Your task to perform on an android device: turn off priority inbox in the gmail app Image 0: 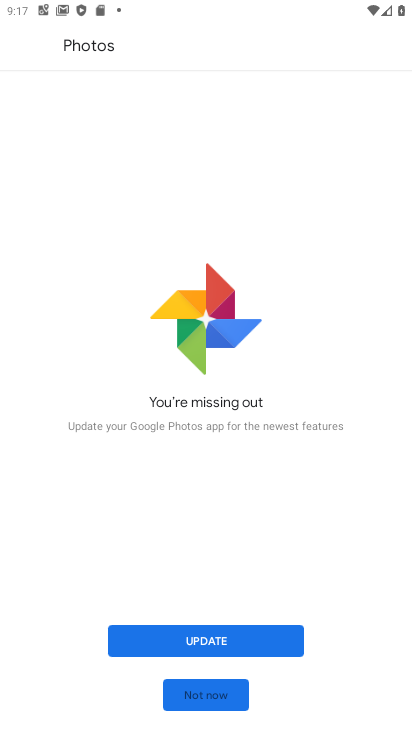
Step 0: press home button
Your task to perform on an android device: turn off priority inbox in the gmail app Image 1: 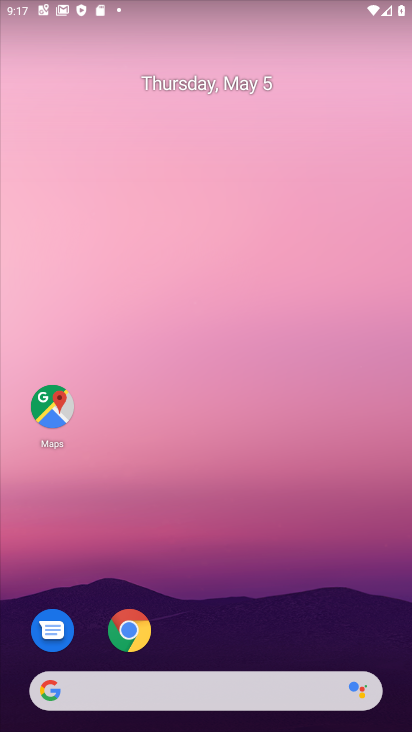
Step 1: drag from (131, 421) to (70, 104)
Your task to perform on an android device: turn off priority inbox in the gmail app Image 2: 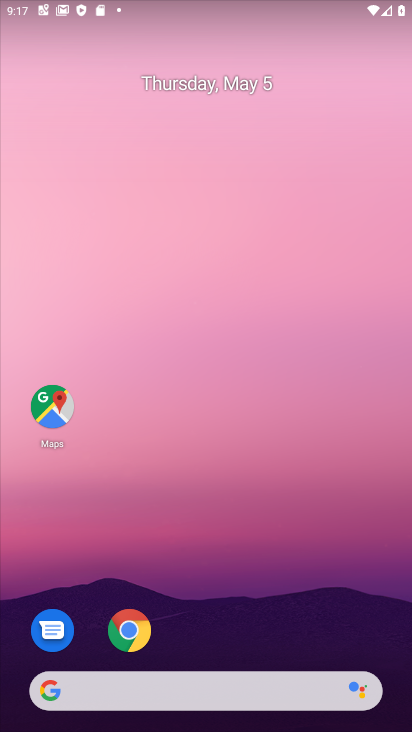
Step 2: drag from (211, 598) to (12, 36)
Your task to perform on an android device: turn off priority inbox in the gmail app Image 3: 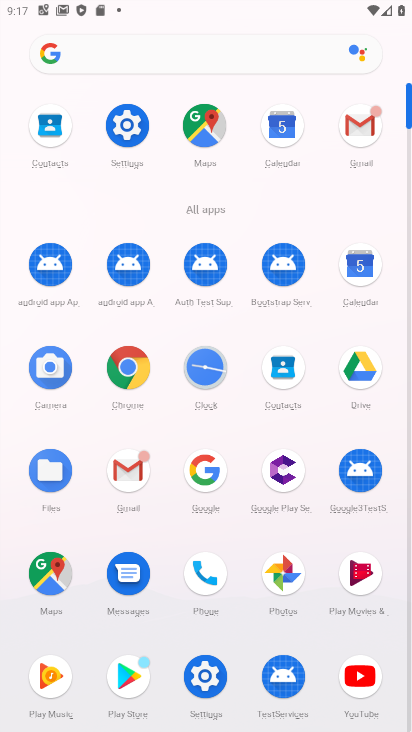
Step 3: click (360, 133)
Your task to perform on an android device: turn off priority inbox in the gmail app Image 4: 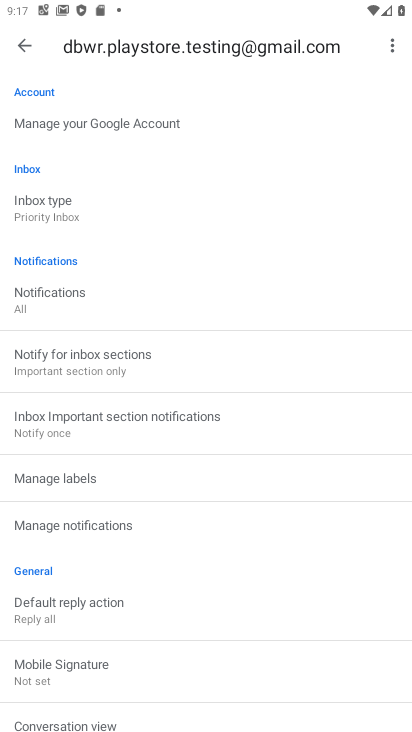
Step 4: click (37, 215)
Your task to perform on an android device: turn off priority inbox in the gmail app Image 5: 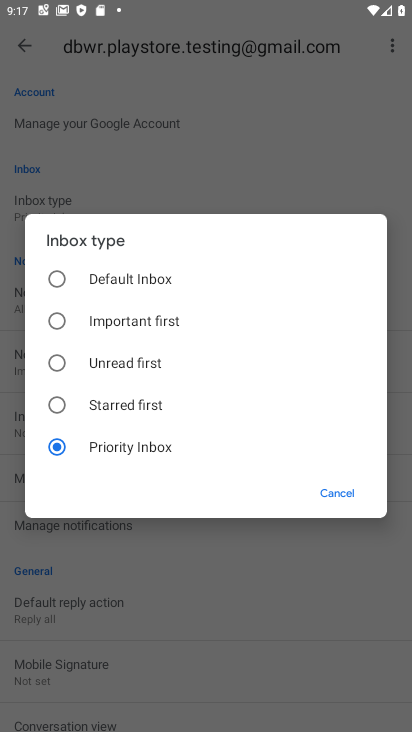
Step 5: click (61, 361)
Your task to perform on an android device: turn off priority inbox in the gmail app Image 6: 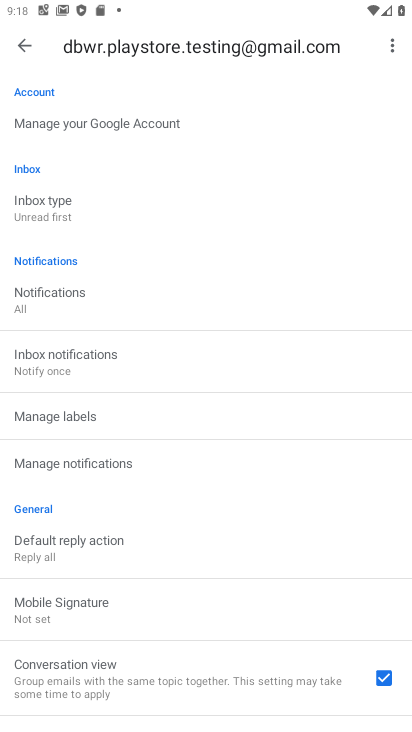
Step 6: task complete